Your task to perform on an android device: Search for vegetarian restaurants on Maps Image 0: 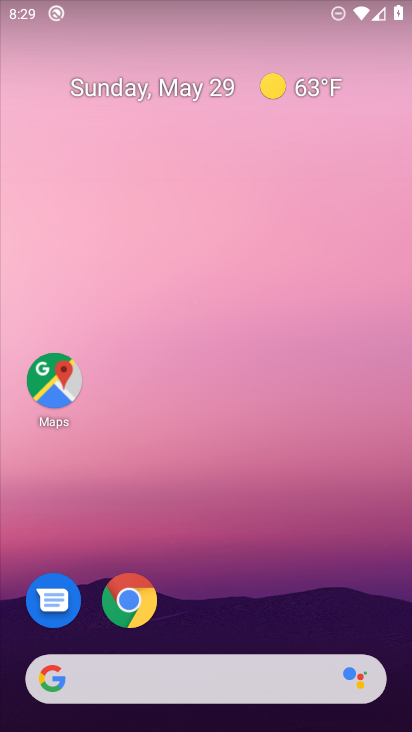
Step 0: click (44, 393)
Your task to perform on an android device: Search for vegetarian restaurants on Maps Image 1: 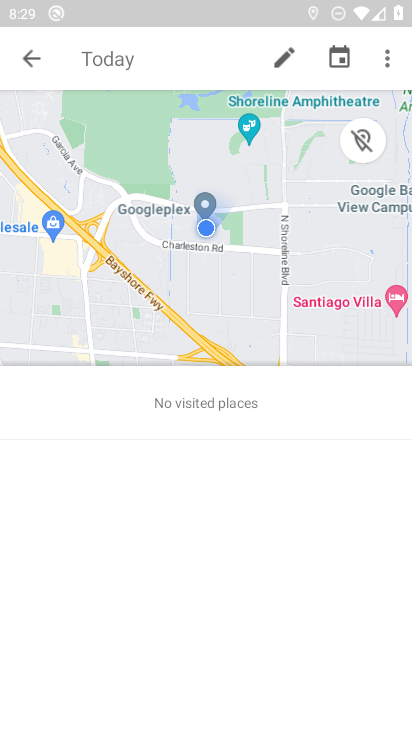
Step 1: click (30, 59)
Your task to perform on an android device: Search for vegetarian restaurants on Maps Image 2: 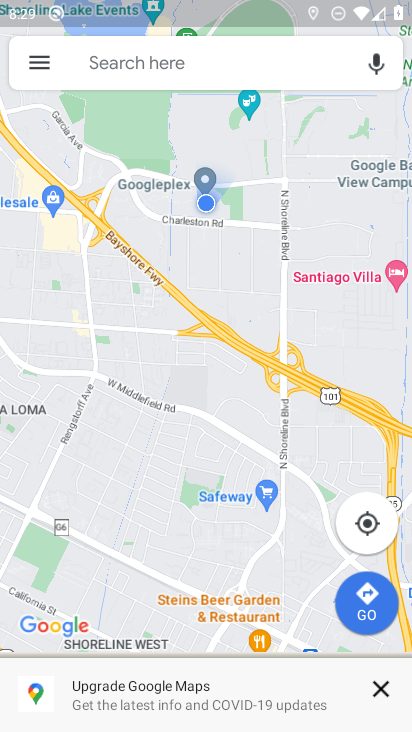
Step 2: click (386, 688)
Your task to perform on an android device: Search for vegetarian restaurants on Maps Image 3: 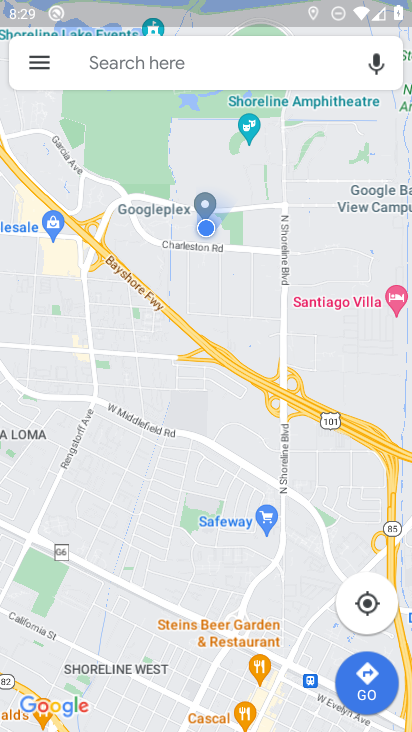
Step 3: click (206, 72)
Your task to perform on an android device: Search for vegetarian restaurants on Maps Image 4: 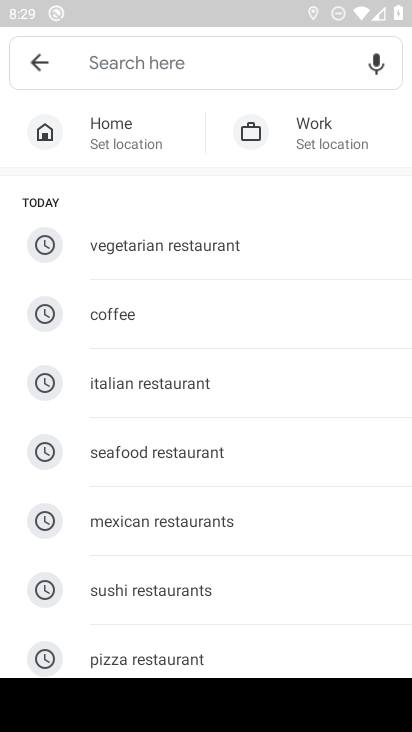
Step 4: type "vegetarian restaurants"
Your task to perform on an android device: Search for vegetarian restaurants on Maps Image 5: 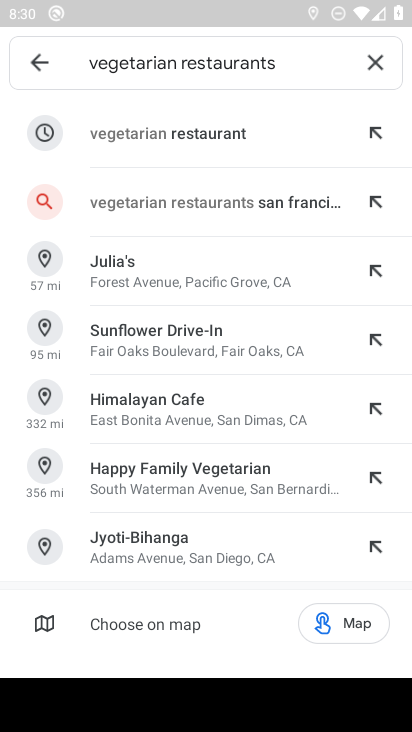
Step 5: click (249, 130)
Your task to perform on an android device: Search for vegetarian restaurants on Maps Image 6: 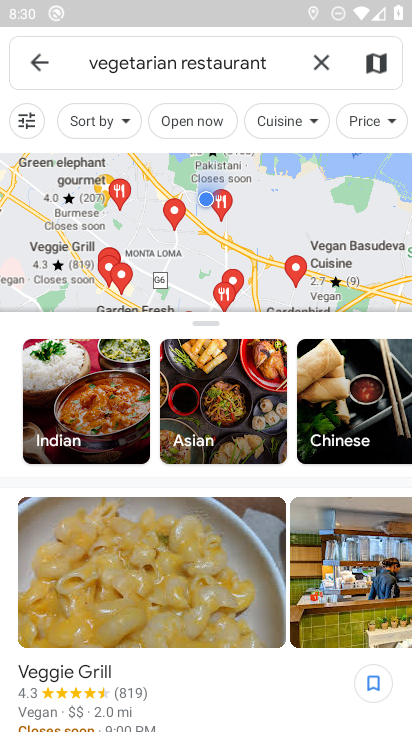
Step 6: task complete